Your task to perform on an android device: Go to eBay Image 0: 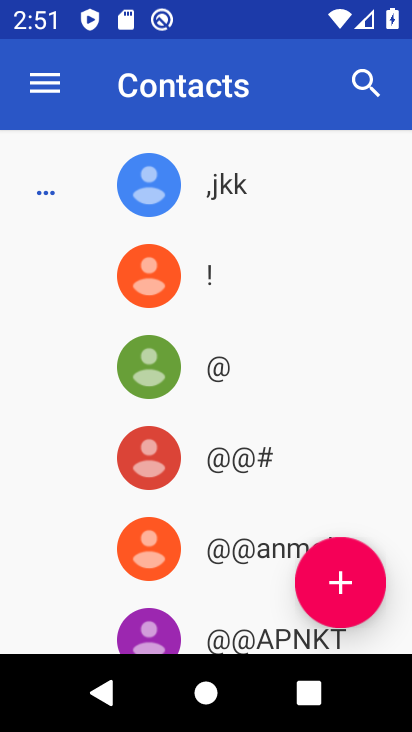
Step 0: drag from (286, 542) to (361, 523)
Your task to perform on an android device: Go to eBay Image 1: 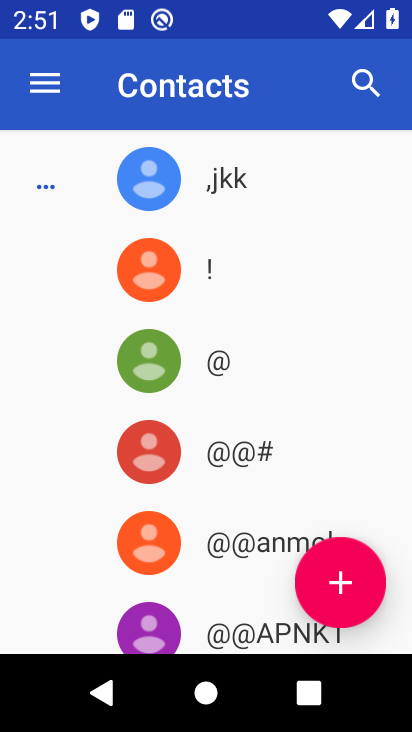
Step 1: press home button
Your task to perform on an android device: Go to eBay Image 2: 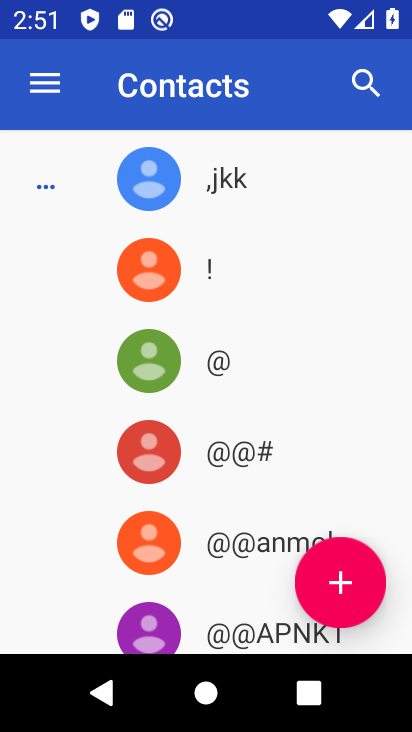
Step 2: drag from (361, 523) to (406, 328)
Your task to perform on an android device: Go to eBay Image 3: 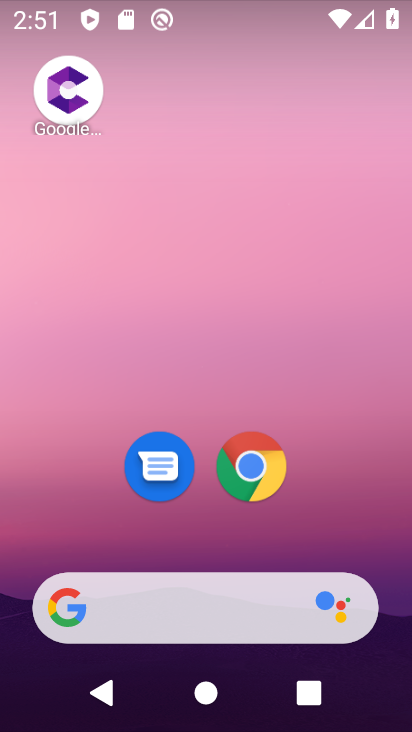
Step 3: click (253, 477)
Your task to perform on an android device: Go to eBay Image 4: 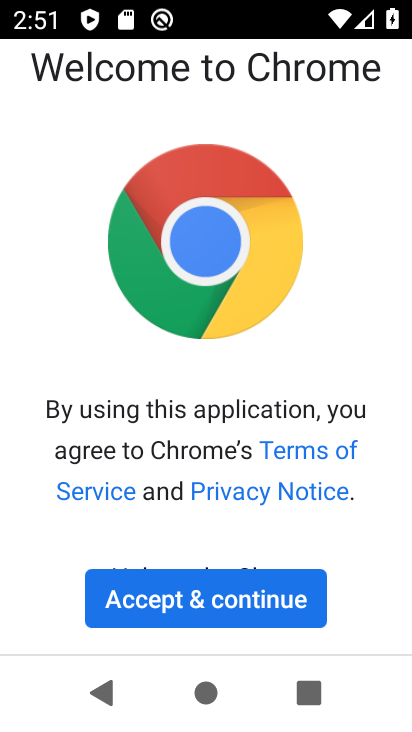
Step 4: click (230, 586)
Your task to perform on an android device: Go to eBay Image 5: 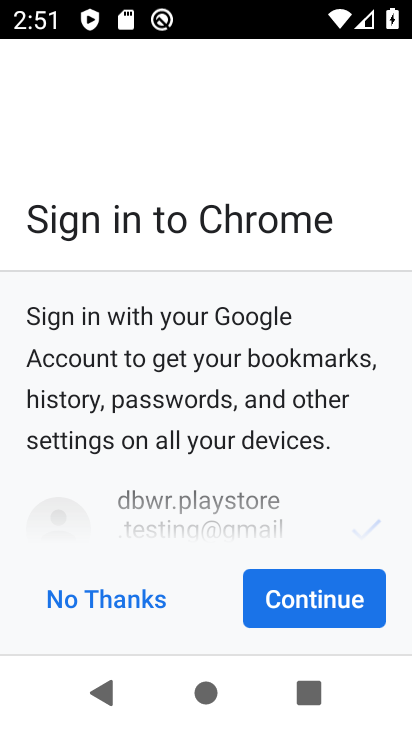
Step 5: click (152, 585)
Your task to perform on an android device: Go to eBay Image 6: 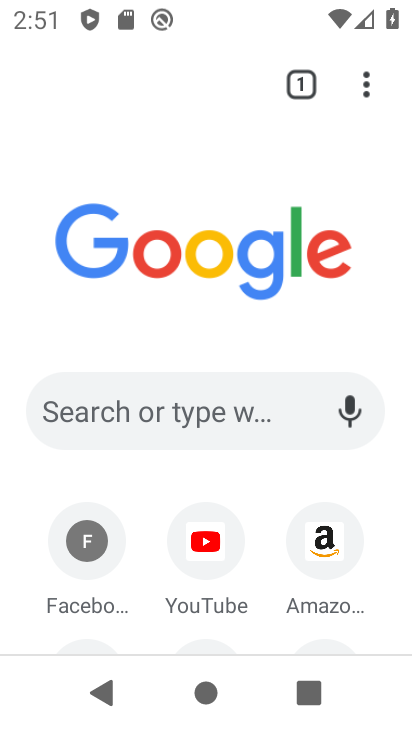
Step 6: drag from (158, 562) to (217, 177)
Your task to perform on an android device: Go to eBay Image 7: 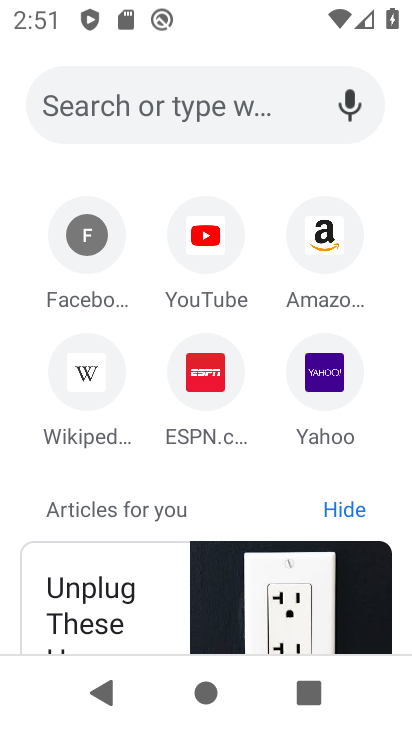
Step 7: click (209, 102)
Your task to perform on an android device: Go to eBay Image 8: 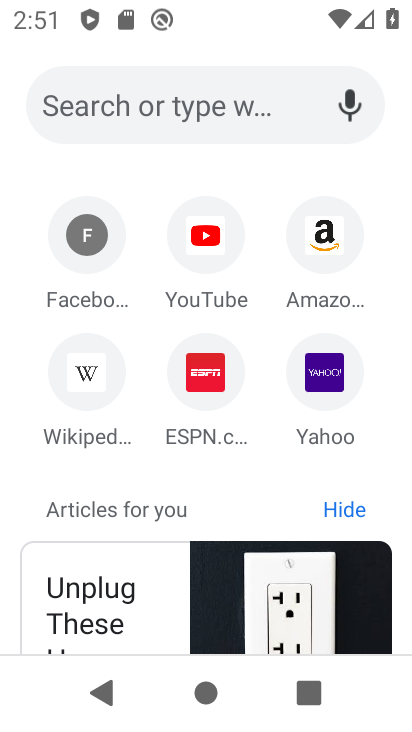
Step 8: click (209, 102)
Your task to perform on an android device: Go to eBay Image 9: 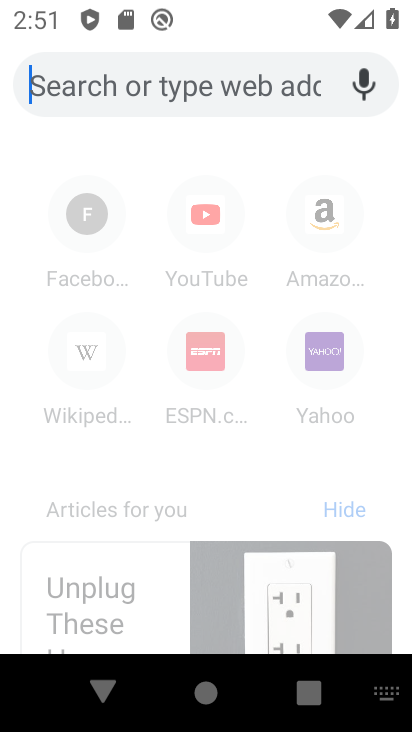
Step 9: type "ebay"
Your task to perform on an android device: Go to eBay Image 10: 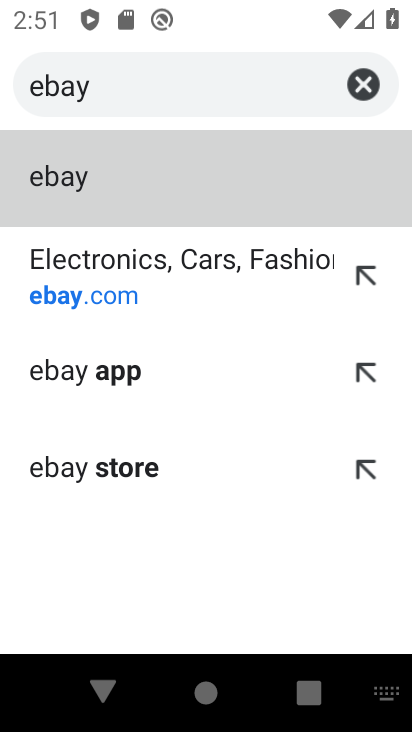
Step 10: click (120, 253)
Your task to perform on an android device: Go to eBay Image 11: 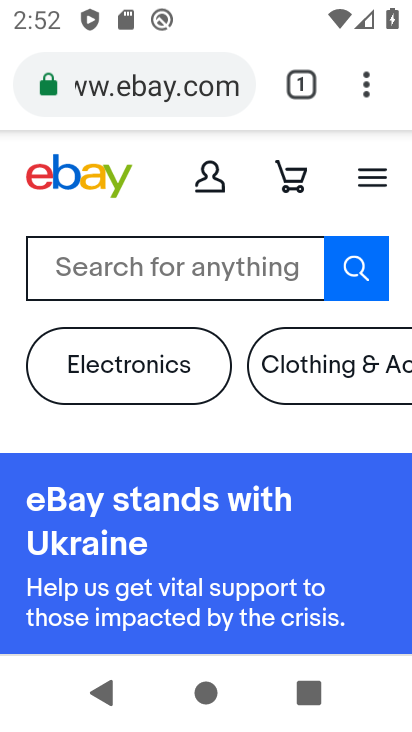
Step 11: task complete